Your task to perform on an android device: Open Maps and search for coffee Image 0: 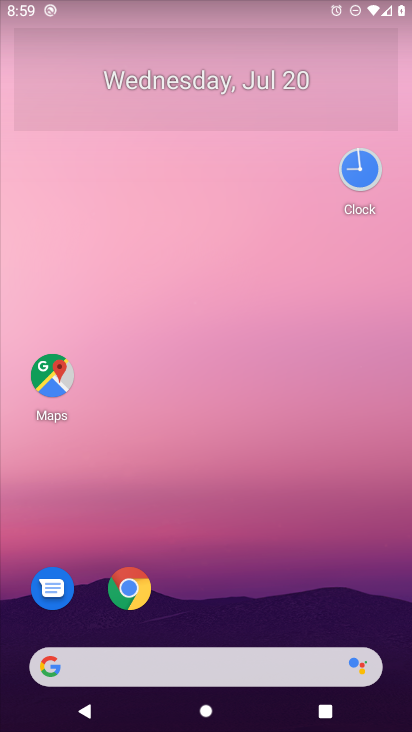
Step 0: drag from (18, 694) to (213, 185)
Your task to perform on an android device: Open Maps and search for coffee Image 1: 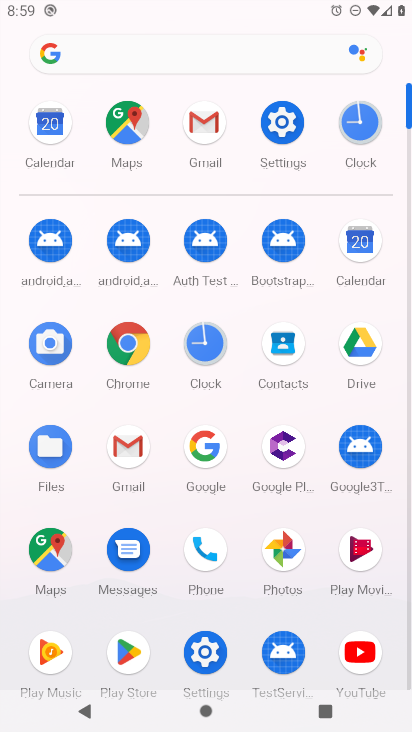
Step 1: click (45, 565)
Your task to perform on an android device: Open Maps and search for coffee Image 2: 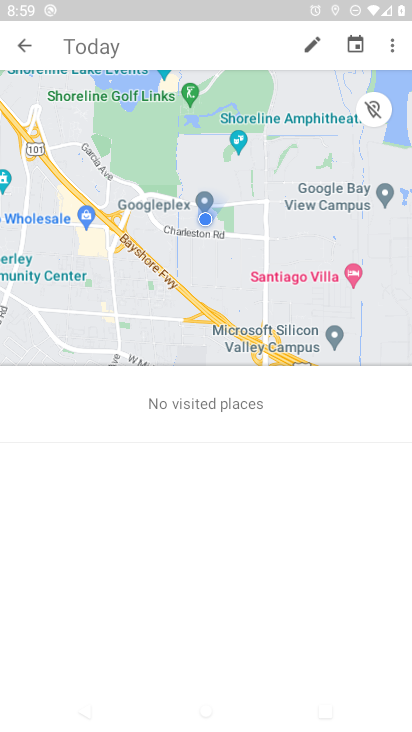
Step 2: click (90, 47)
Your task to perform on an android device: Open Maps and search for coffee Image 3: 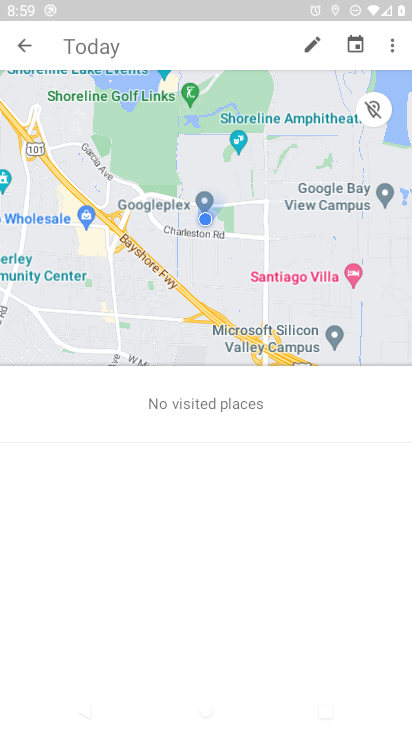
Step 3: click (56, 38)
Your task to perform on an android device: Open Maps and search for coffee Image 4: 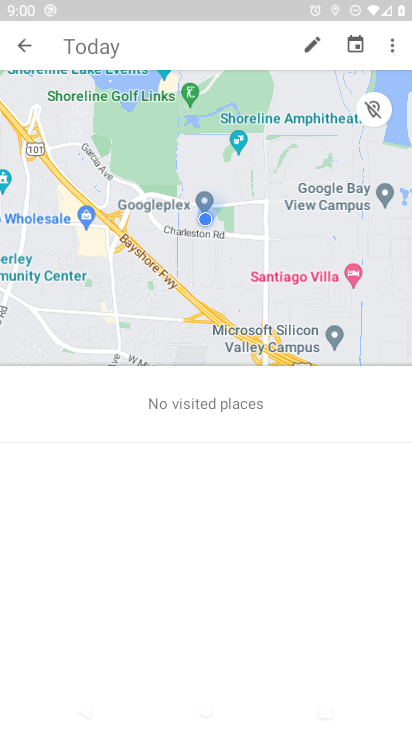
Step 4: click (91, 51)
Your task to perform on an android device: Open Maps and search for coffee Image 5: 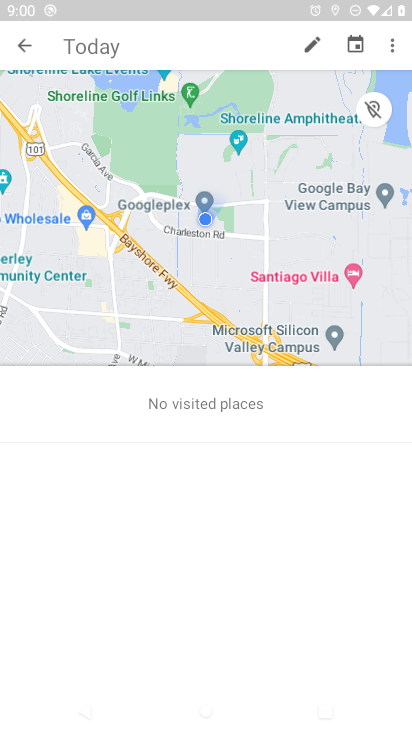
Step 5: click (96, 45)
Your task to perform on an android device: Open Maps and search for coffee Image 6: 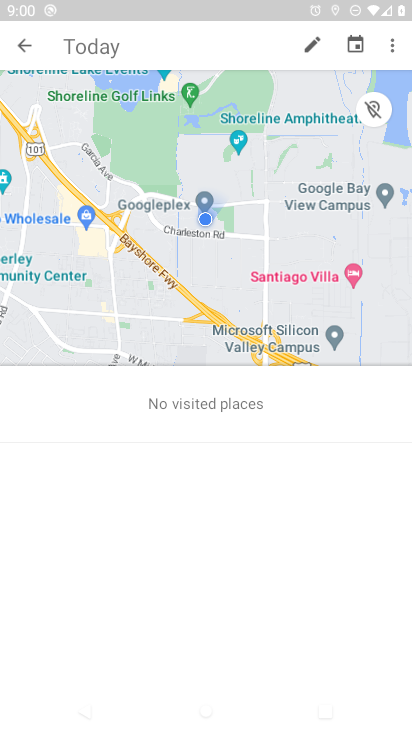
Step 6: click (16, 41)
Your task to perform on an android device: Open Maps and search for coffee Image 7: 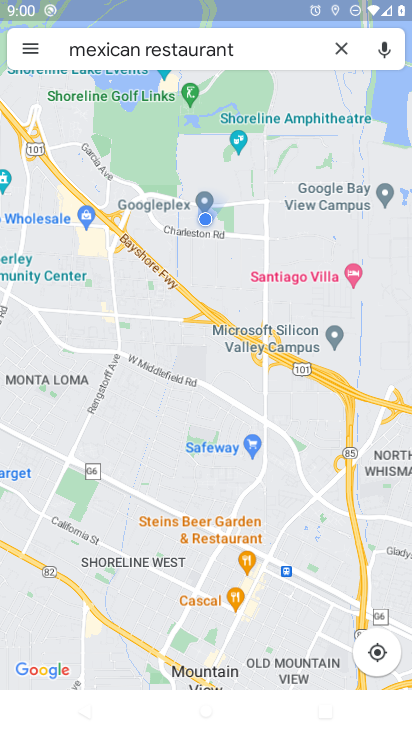
Step 7: click (343, 44)
Your task to perform on an android device: Open Maps and search for coffee Image 8: 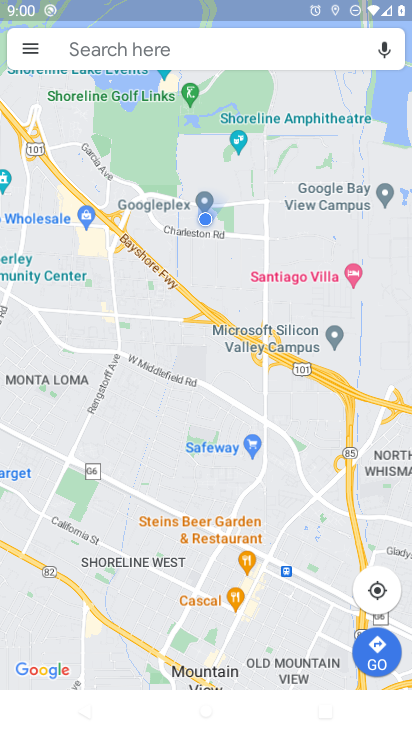
Step 8: click (92, 46)
Your task to perform on an android device: Open Maps and search for coffee Image 9: 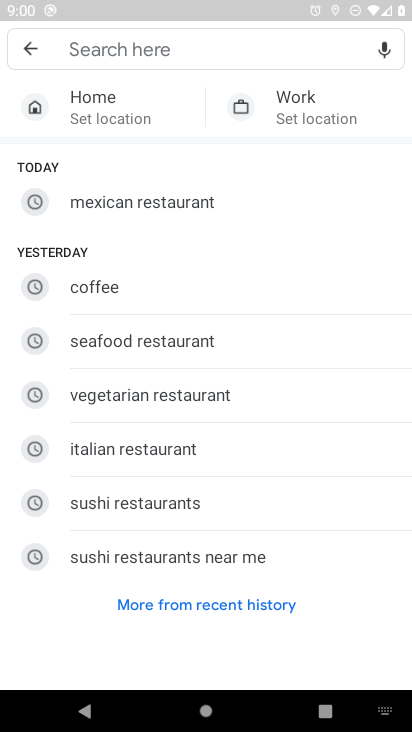
Step 9: click (97, 291)
Your task to perform on an android device: Open Maps and search for coffee Image 10: 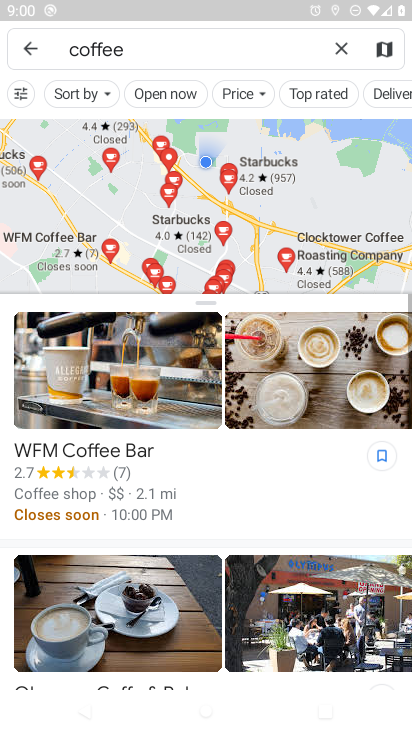
Step 10: task complete